Your task to perform on an android device: View the shopping cart on walmart.com. Add "usb-b" to the cart on walmart.com Image 0: 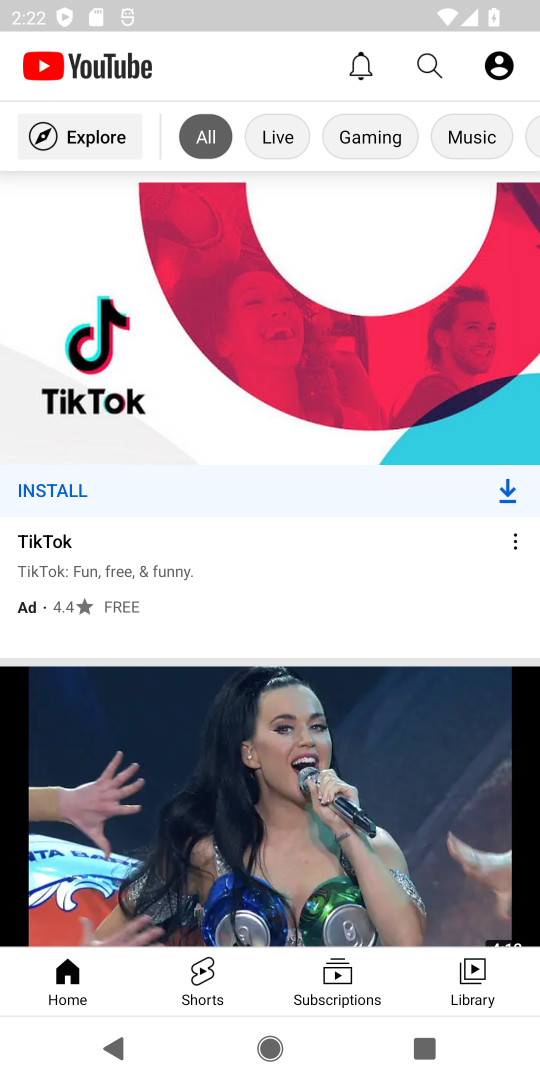
Step 0: press home button
Your task to perform on an android device: View the shopping cart on walmart.com. Add "usb-b" to the cart on walmart.com Image 1: 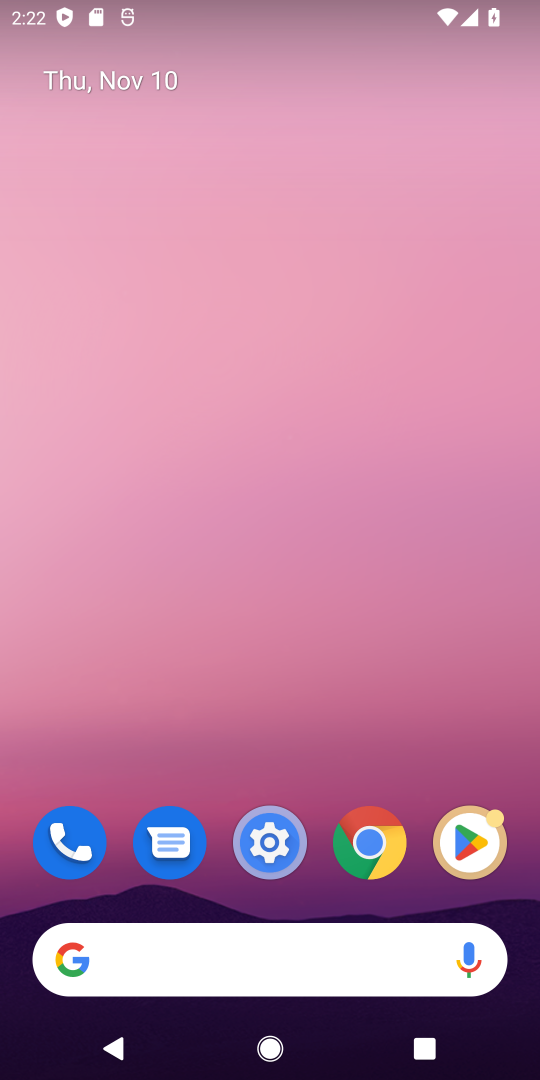
Step 1: click (112, 960)
Your task to perform on an android device: View the shopping cart on walmart.com. Add "usb-b" to the cart on walmart.com Image 2: 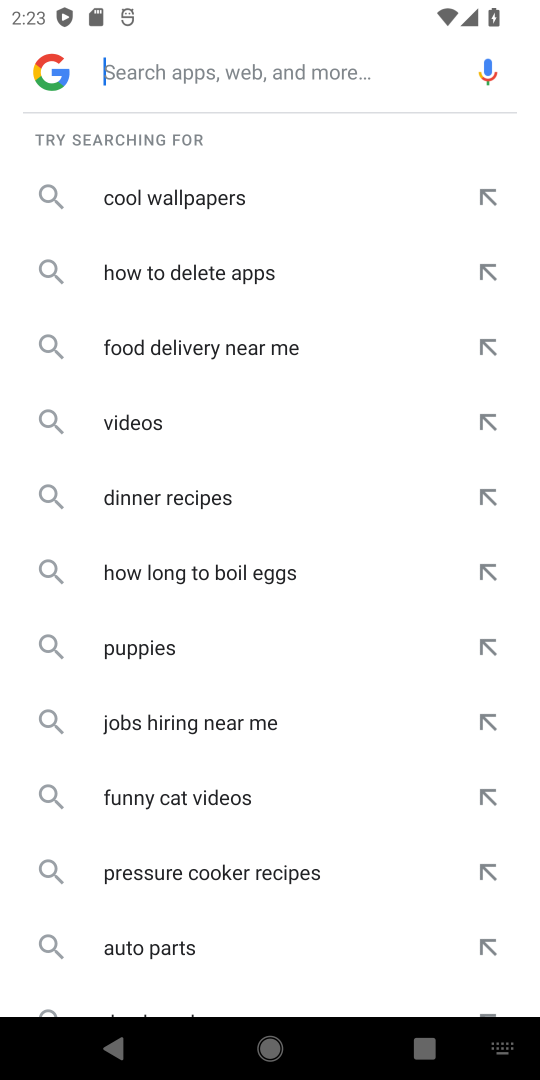
Step 2: type "walmart.com"
Your task to perform on an android device: View the shopping cart on walmart.com. Add "usb-b" to the cart on walmart.com Image 3: 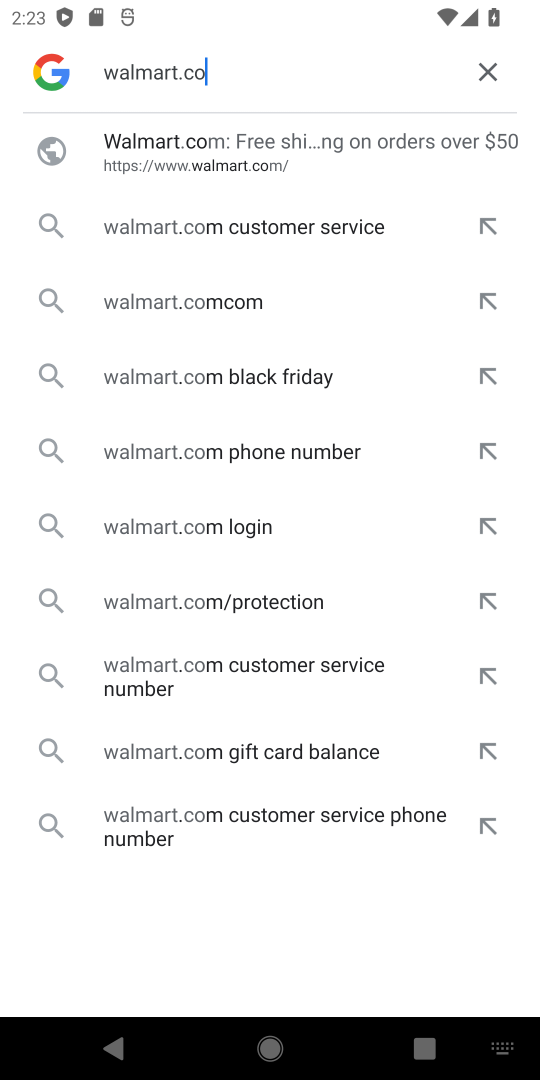
Step 3: press enter
Your task to perform on an android device: View the shopping cart on walmart.com. Add "usb-b" to the cart on walmart.com Image 4: 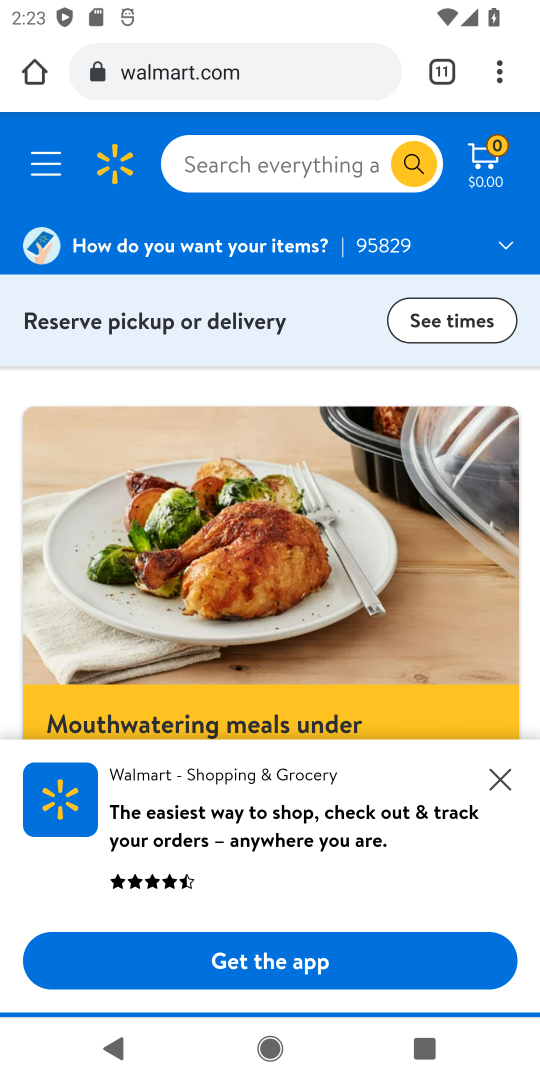
Step 4: click (497, 164)
Your task to perform on an android device: View the shopping cart on walmart.com. Add "usb-b" to the cart on walmart.com Image 5: 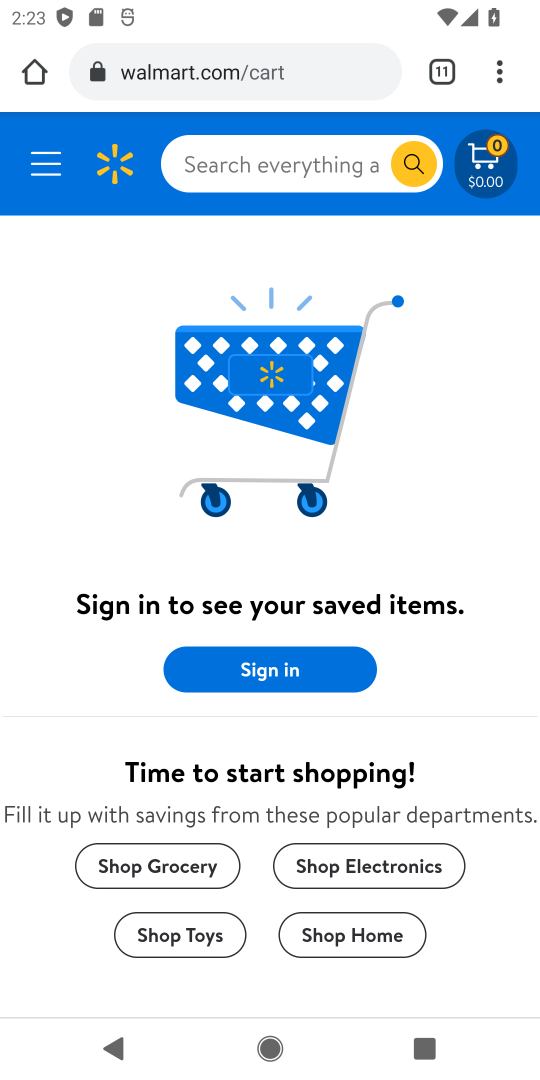
Step 5: click (203, 160)
Your task to perform on an android device: View the shopping cart on walmart.com. Add "usb-b" to the cart on walmart.com Image 6: 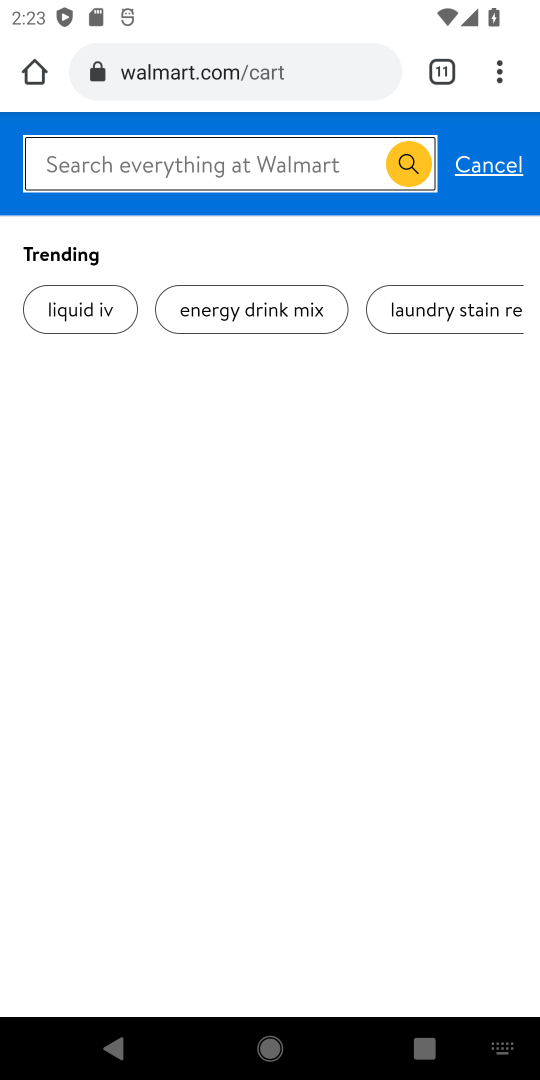
Step 6: type "usb-b"
Your task to perform on an android device: View the shopping cart on walmart.com. Add "usb-b" to the cart on walmart.com Image 7: 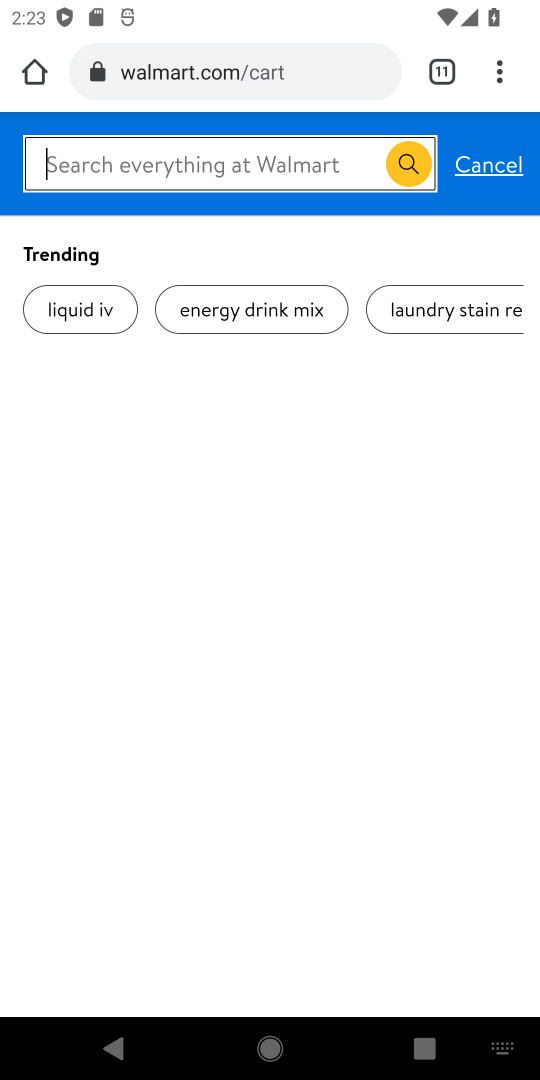
Step 7: press enter
Your task to perform on an android device: View the shopping cart on walmart.com. Add "usb-b" to the cart on walmart.com Image 8: 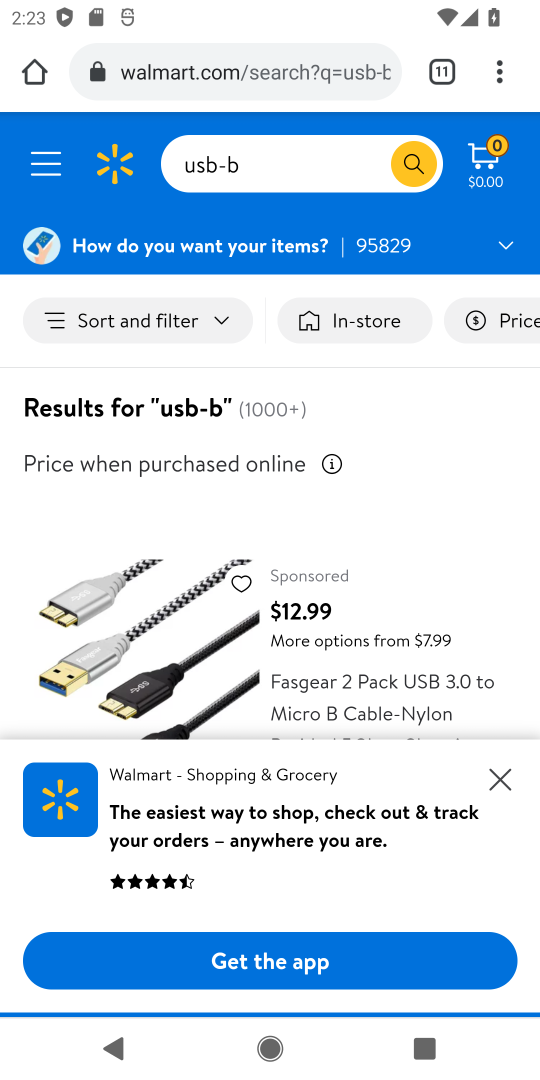
Step 8: click (500, 782)
Your task to perform on an android device: View the shopping cart on walmart.com. Add "usb-b" to the cart on walmart.com Image 9: 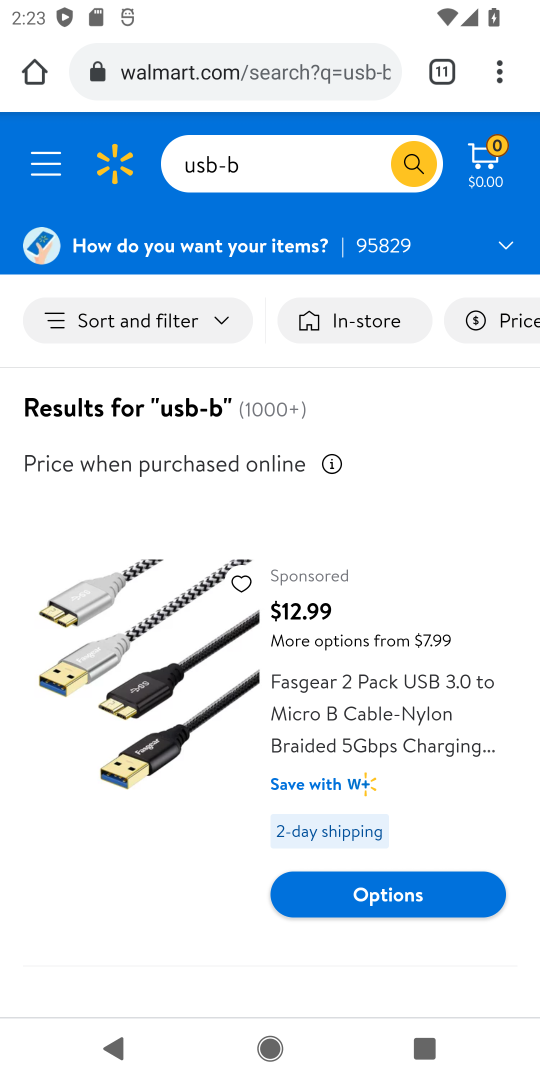
Step 9: drag from (402, 728) to (404, 580)
Your task to perform on an android device: View the shopping cart on walmart.com. Add "usb-b" to the cart on walmart.com Image 10: 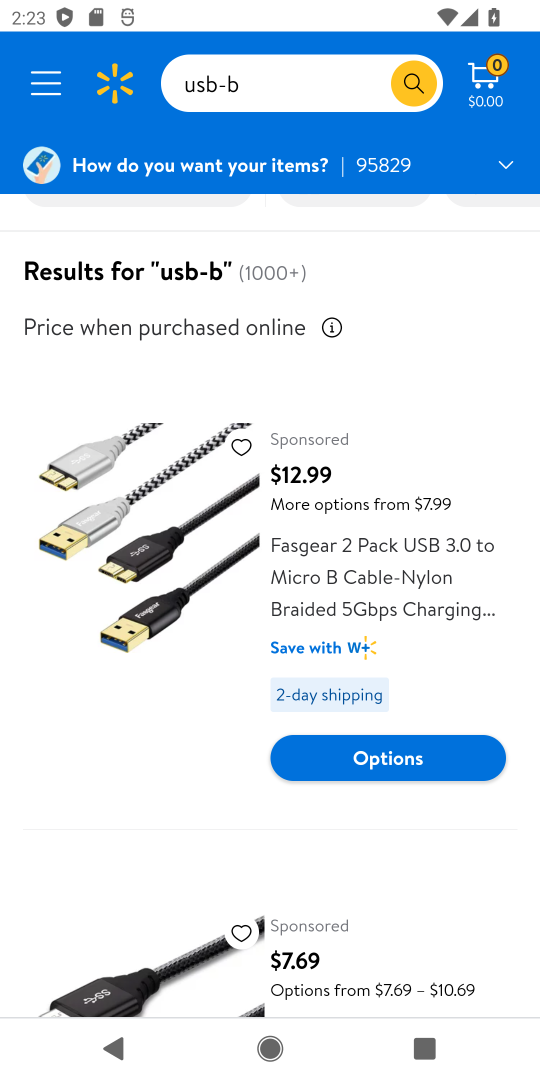
Step 10: click (341, 561)
Your task to perform on an android device: View the shopping cart on walmart.com. Add "usb-b" to the cart on walmart.com Image 11: 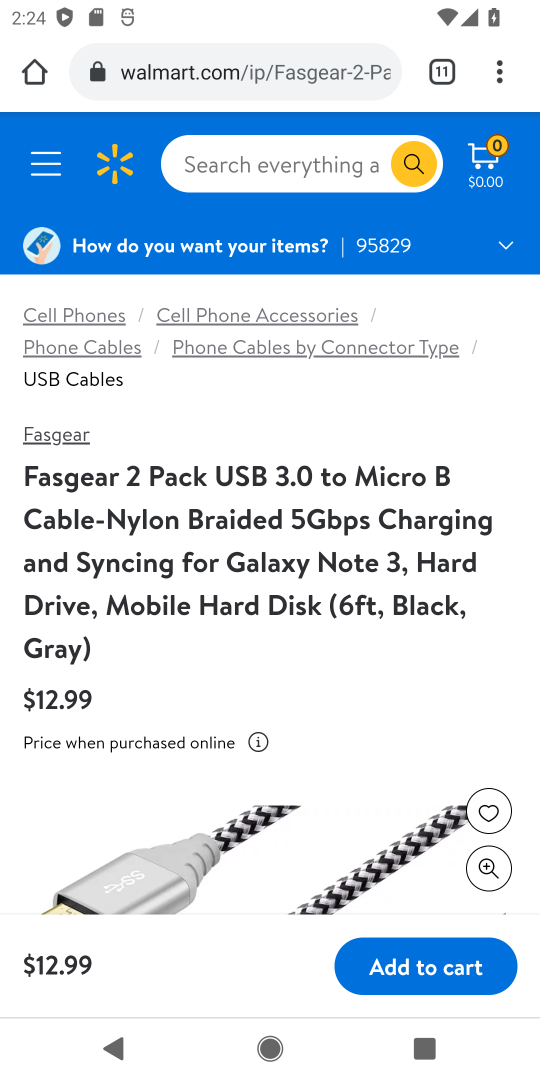
Step 11: click (437, 971)
Your task to perform on an android device: View the shopping cart on walmart.com. Add "usb-b" to the cart on walmart.com Image 12: 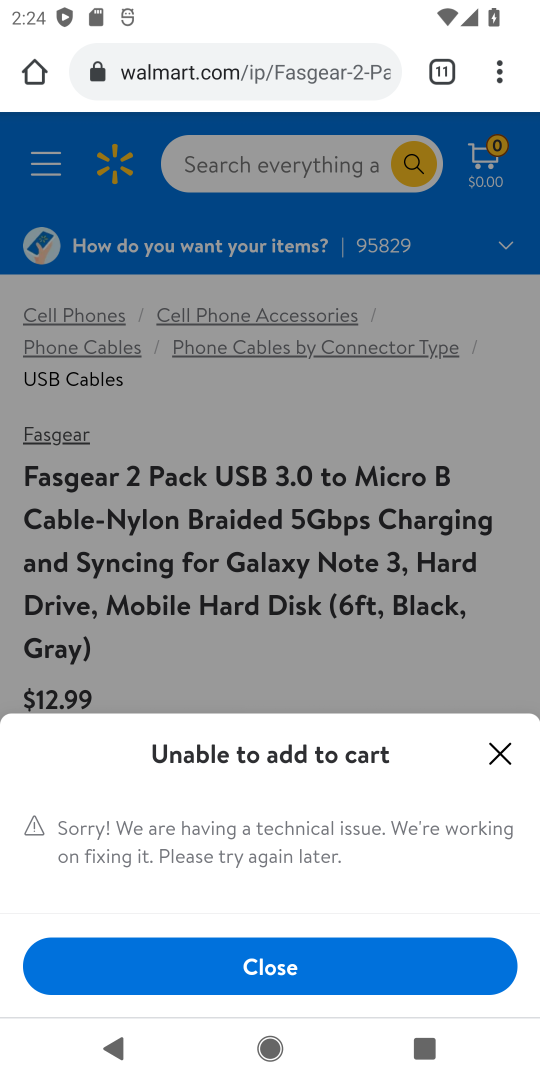
Step 12: task complete